Your task to perform on an android device: Open Reddit.com Image 0: 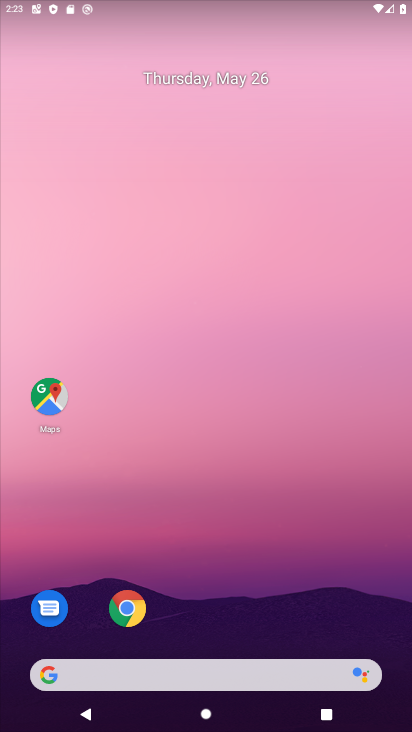
Step 0: click (120, 617)
Your task to perform on an android device: Open Reddit.com Image 1: 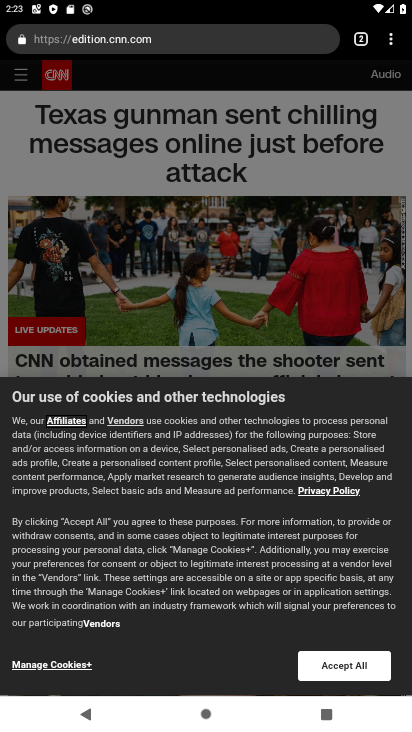
Step 1: click (182, 41)
Your task to perform on an android device: Open Reddit.com Image 2: 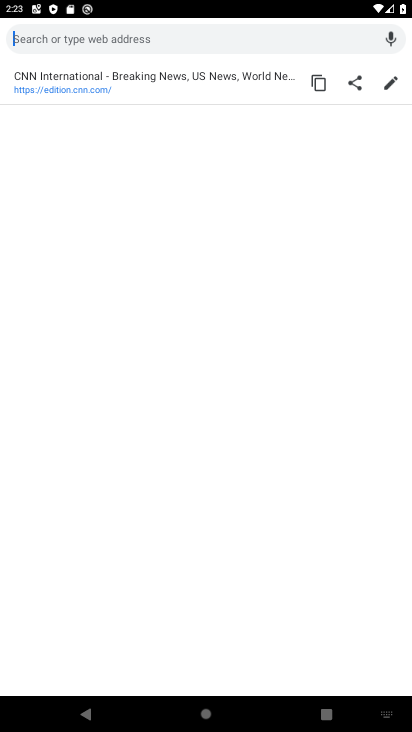
Step 2: type "reddit"
Your task to perform on an android device: Open Reddit.com Image 3: 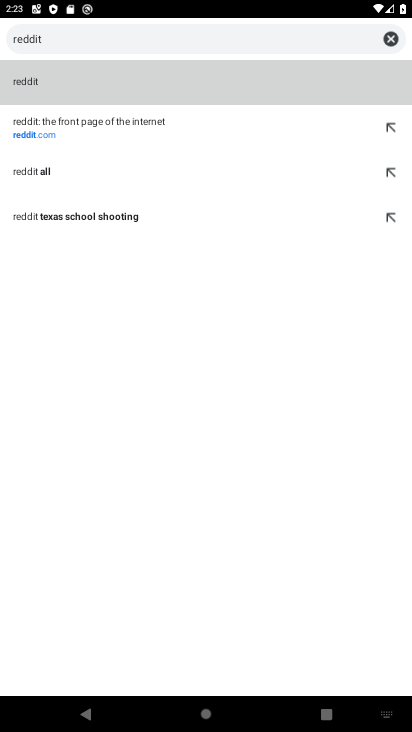
Step 3: click (48, 126)
Your task to perform on an android device: Open Reddit.com Image 4: 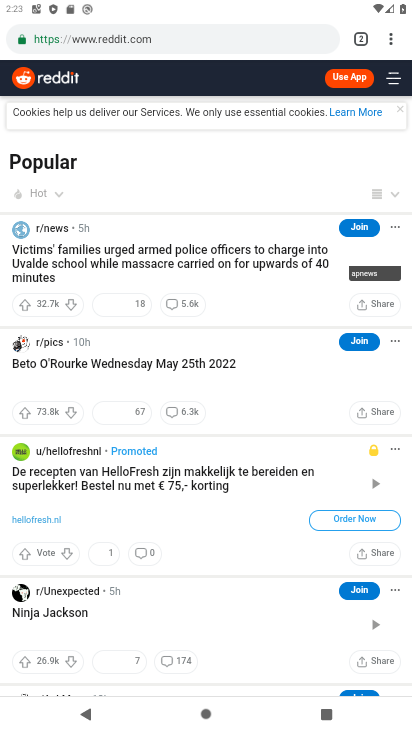
Step 4: task complete